Your task to perform on an android device: manage bookmarks in the chrome app Image 0: 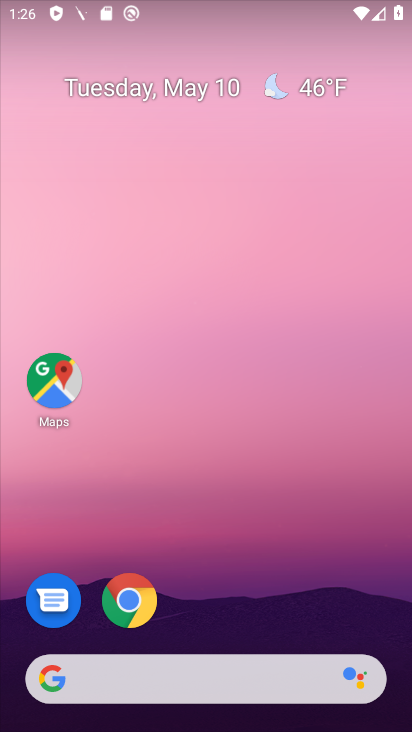
Step 0: drag from (219, 633) to (197, 15)
Your task to perform on an android device: manage bookmarks in the chrome app Image 1: 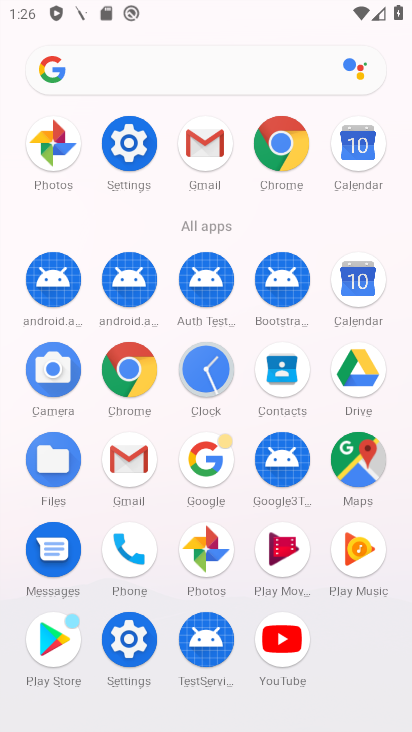
Step 1: click (136, 377)
Your task to perform on an android device: manage bookmarks in the chrome app Image 2: 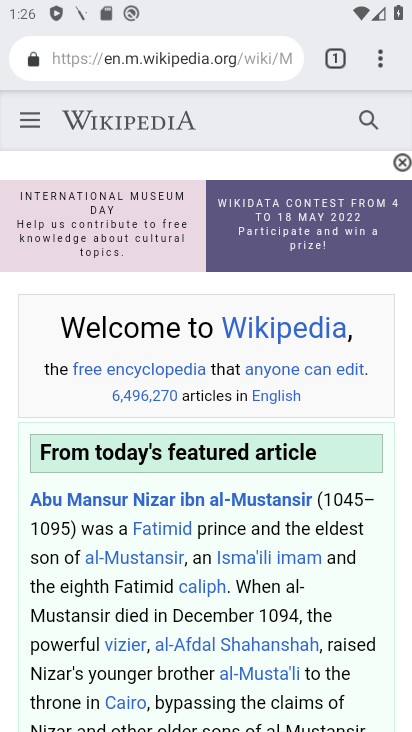
Step 2: click (374, 60)
Your task to perform on an android device: manage bookmarks in the chrome app Image 3: 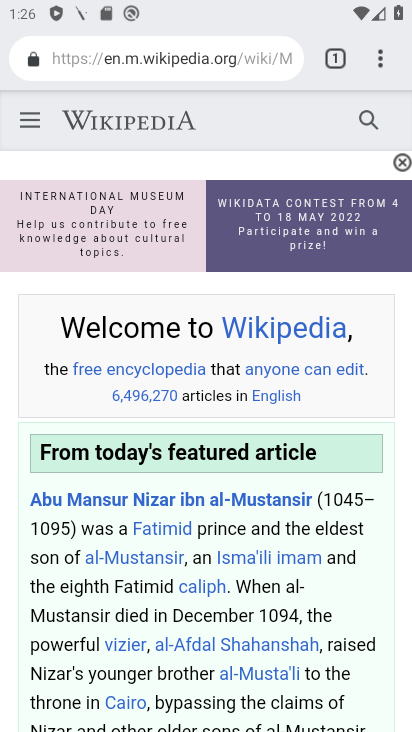
Step 3: task complete